Your task to perform on an android device: snooze an email in the gmail app Image 0: 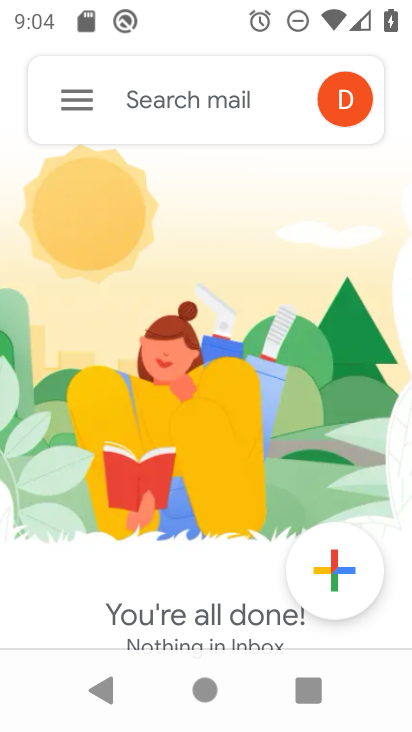
Step 0: press home button
Your task to perform on an android device: snooze an email in the gmail app Image 1: 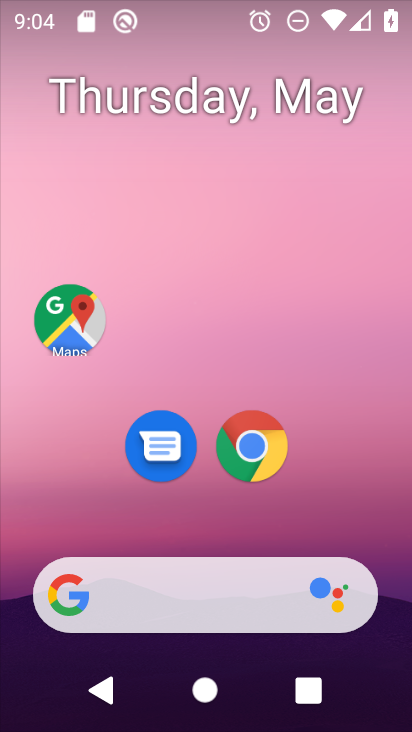
Step 1: drag from (375, 473) to (353, 36)
Your task to perform on an android device: snooze an email in the gmail app Image 2: 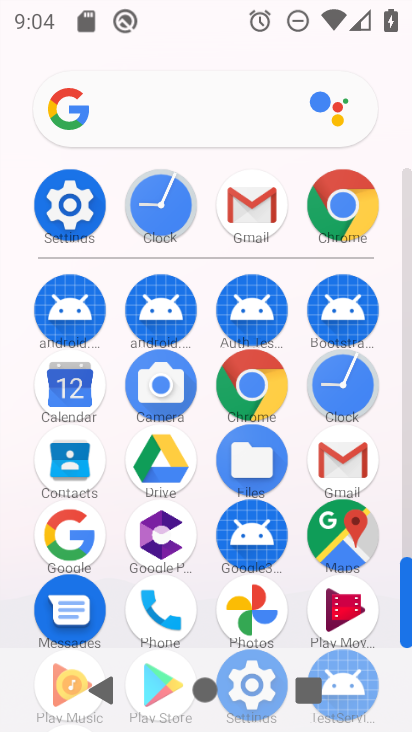
Step 2: click (368, 462)
Your task to perform on an android device: snooze an email in the gmail app Image 3: 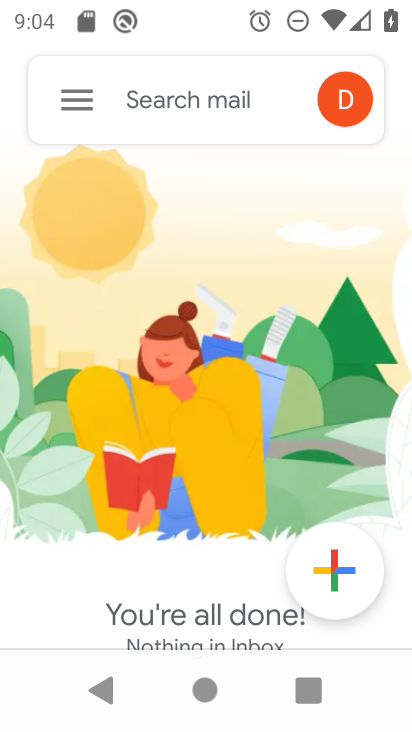
Step 3: click (73, 105)
Your task to perform on an android device: snooze an email in the gmail app Image 4: 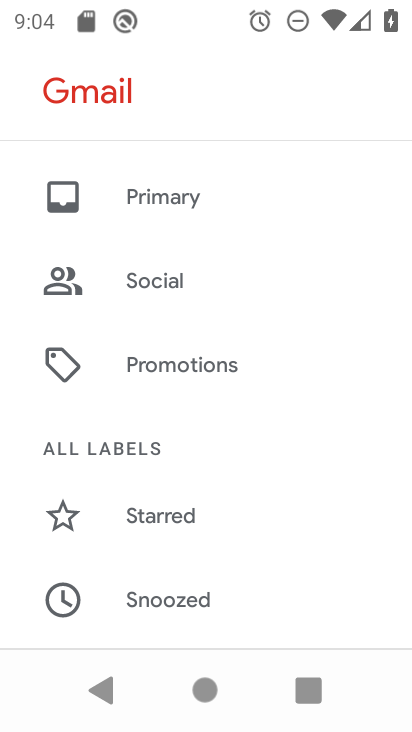
Step 4: drag from (256, 575) to (298, 253)
Your task to perform on an android device: snooze an email in the gmail app Image 5: 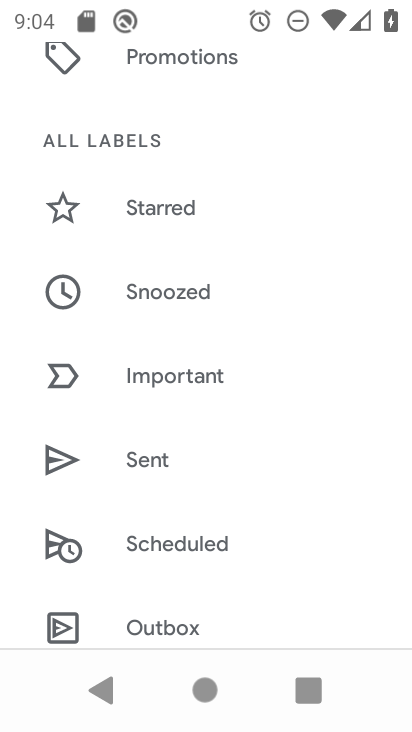
Step 5: drag from (293, 565) to (305, 316)
Your task to perform on an android device: snooze an email in the gmail app Image 6: 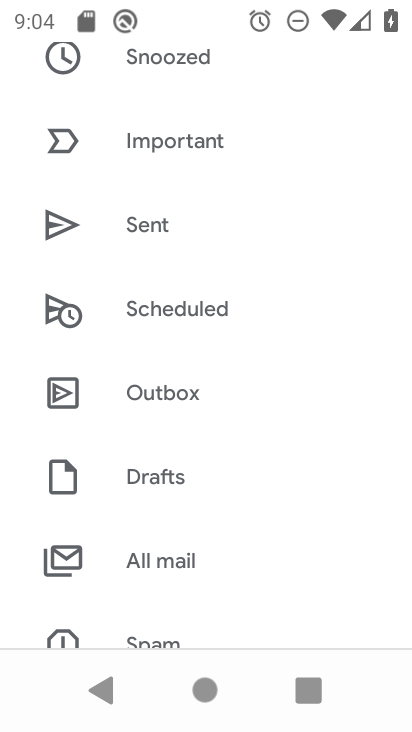
Step 6: click (207, 559)
Your task to perform on an android device: snooze an email in the gmail app Image 7: 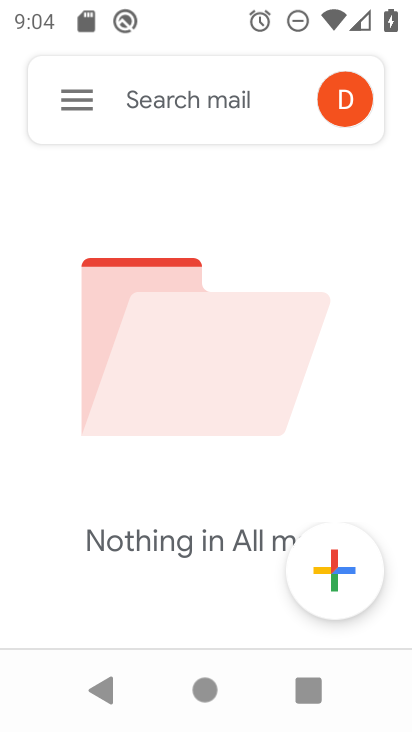
Step 7: task complete